Your task to perform on an android device: Go to Google Image 0: 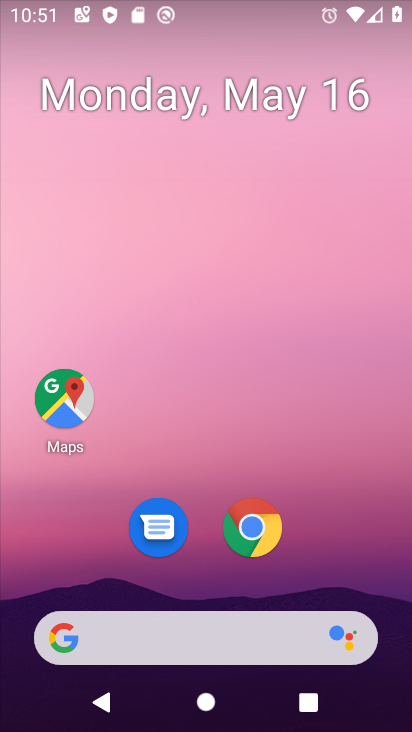
Step 0: drag from (368, 570) to (367, 12)
Your task to perform on an android device: Go to Google Image 1: 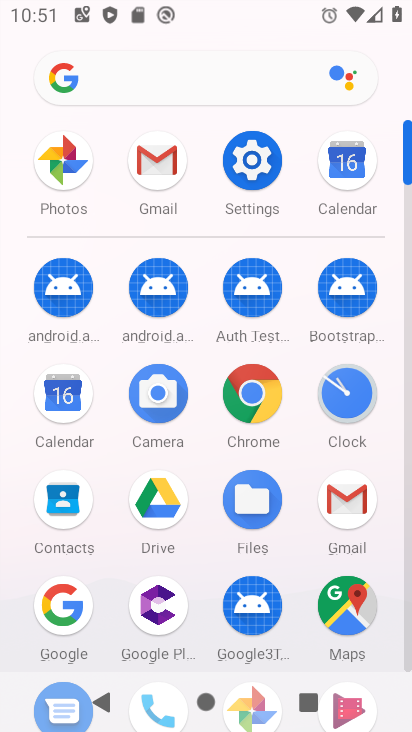
Step 1: click (66, 613)
Your task to perform on an android device: Go to Google Image 2: 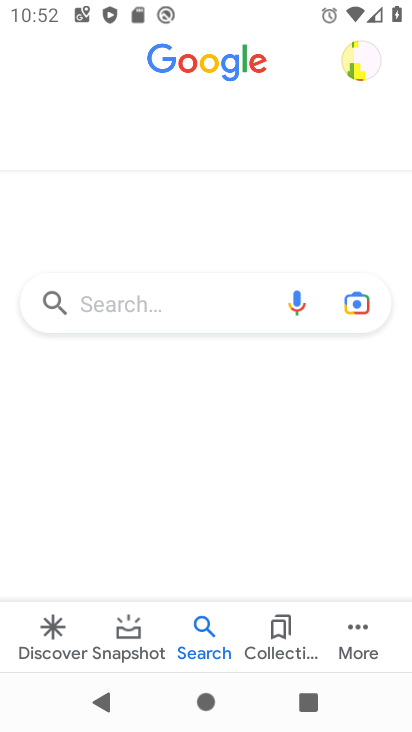
Step 2: task complete